Your task to perform on an android device: check android version Image 0: 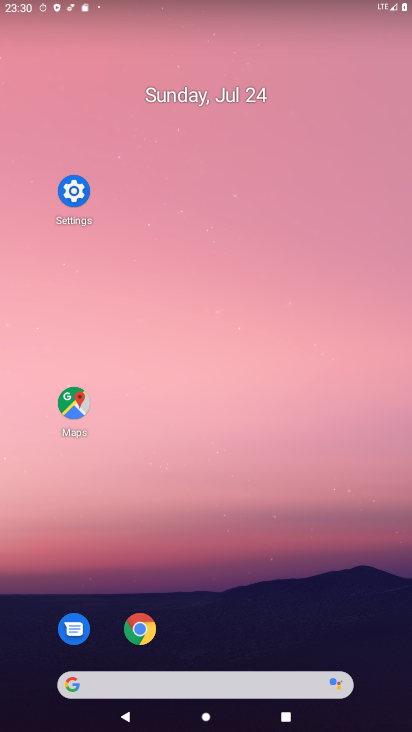
Step 0: click (325, 0)
Your task to perform on an android device: check android version Image 1: 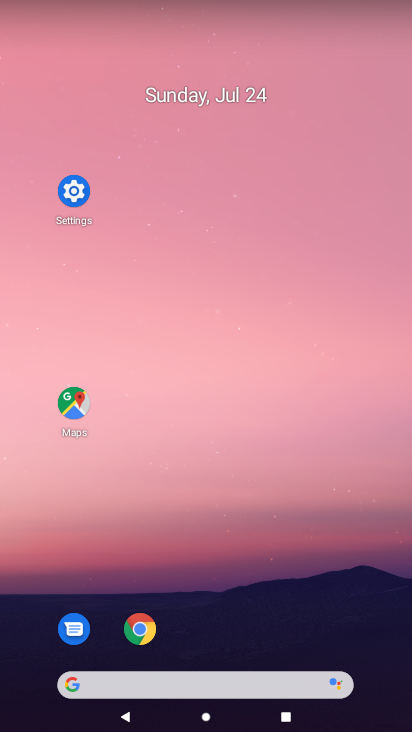
Step 1: drag from (294, 592) to (244, 24)
Your task to perform on an android device: check android version Image 2: 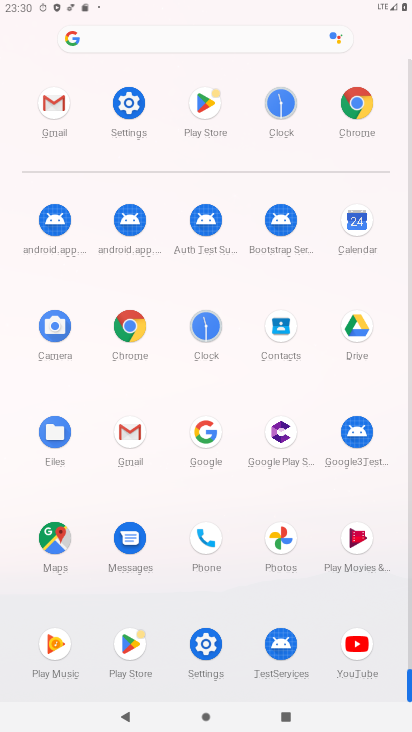
Step 2: click (207, 648)
Your task to perform on an android device: check android version Image 3: 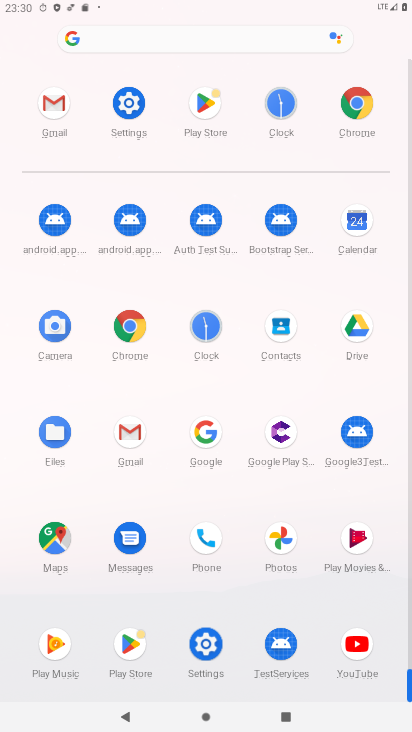
Step 3: click (202, 651)
Your task to perform on an android device: check android version Image 4: 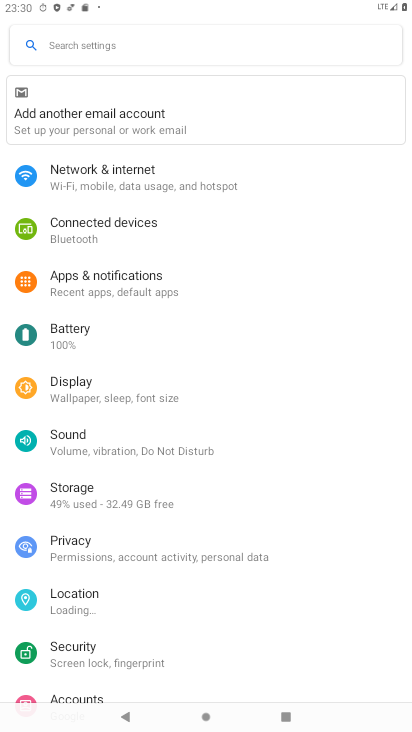
Step 4: drag from (107, 540) to (110, 163)
Your task to perform on an android device: check android version Image 5: 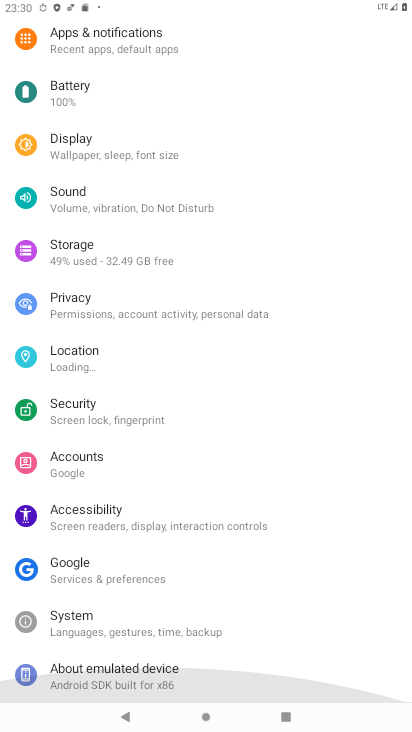
Step 5: drag from (155, 536) to (161, 209)
Your task to perform on an android device: check android version Image 6: 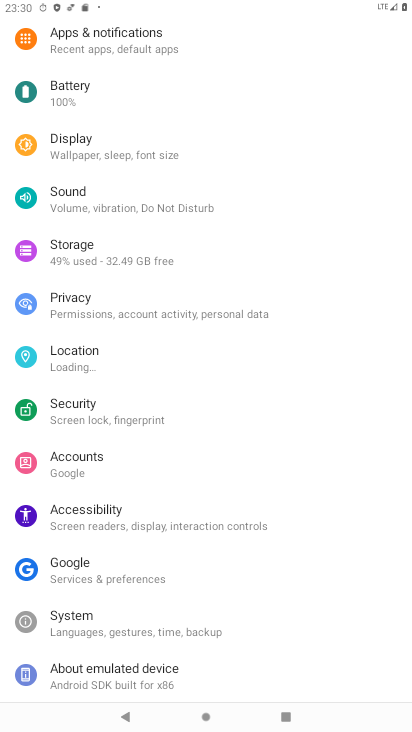
Step 6: drag from (211, 346) to (161, 110)
Your task to perform on an android device: check android version Image 7: 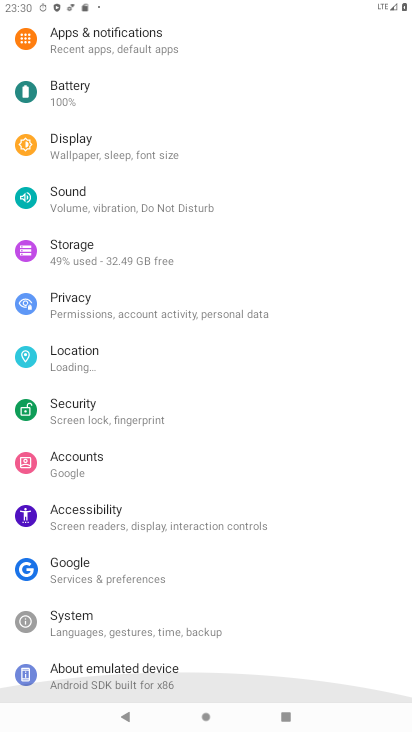
Step 7: drag from (135, 634) to (134, 325)
Your task to perform on an android device: check android version Image 8: 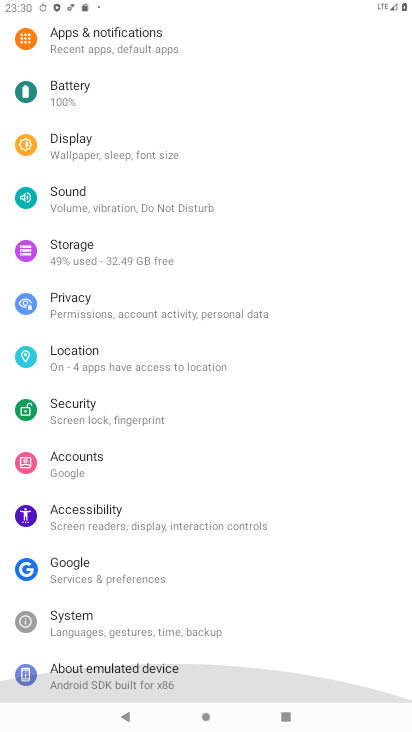
Step 8: drag from (139, 506) to (140, 411)
Your task to perform on an android device: check android version Image 9: 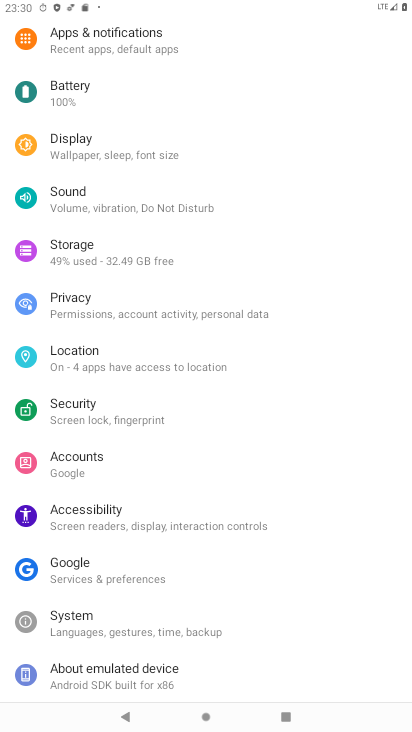
Step 9: click (91, 674)
Your task to perform on an android device: check android version Image 10: 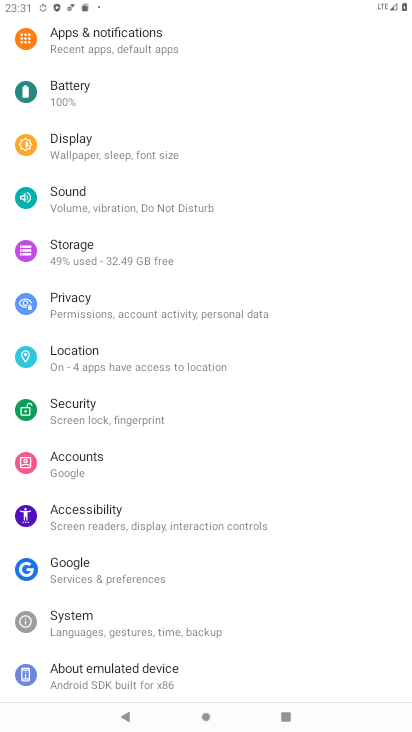
Step 10: click (87, 673)
Your task to perform on an android device: check android version Image 11: 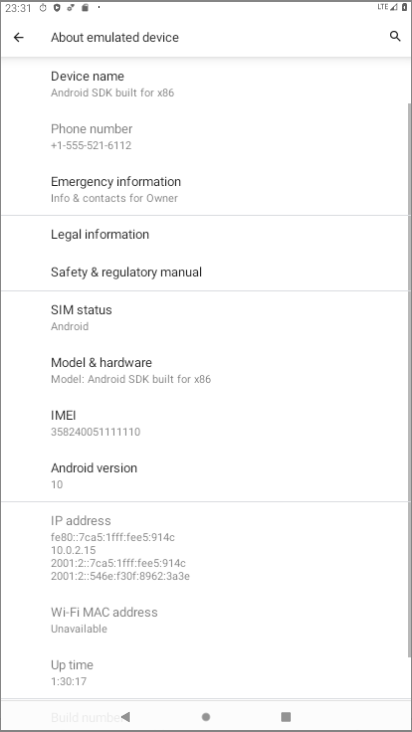
Step 11: click (132, 664)
Your task to perform on an android device: check android version Image 12: 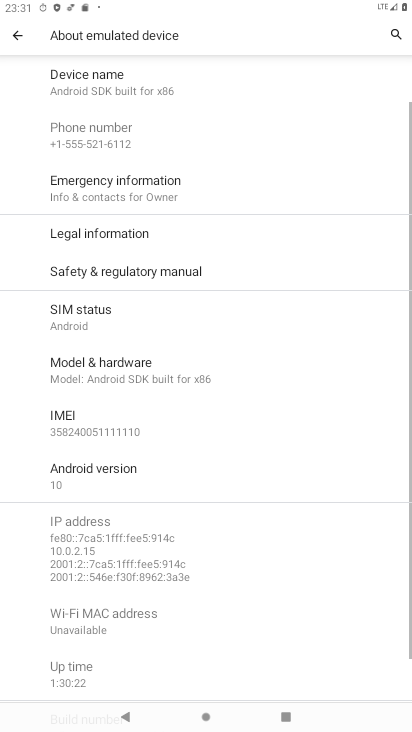
Step 12: click (93, 473)
Your task to perform on an android device: check android version Image 13: 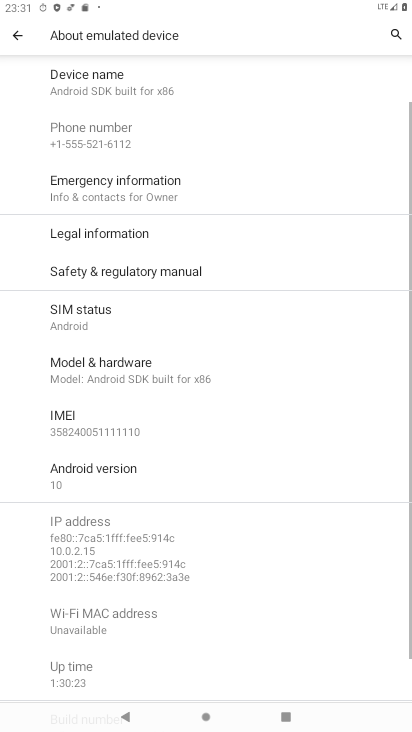
Step 13: click (93, 474)
Your task to perform on an android device: check android version Image 14: 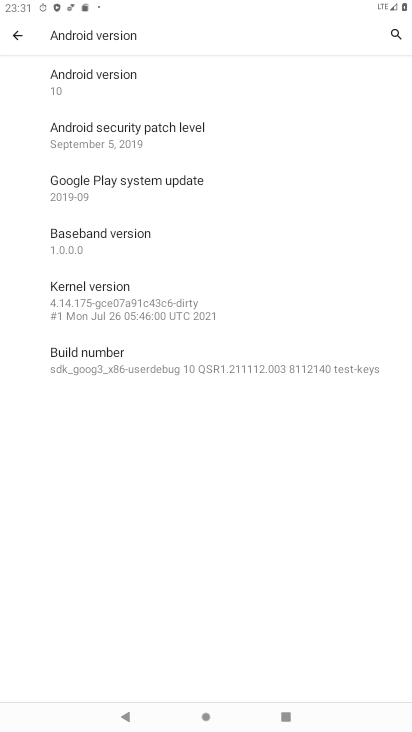
Step 14: task complete